Your task to perform on an android device: Play the last video I watched on Youtube Image 0: 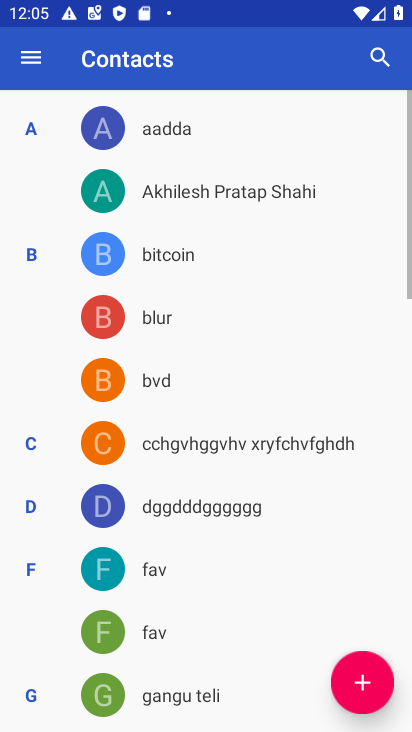
Step 0: press home button
Your task to perform on an android device: Play the last video I watched on Youtube Image 1: 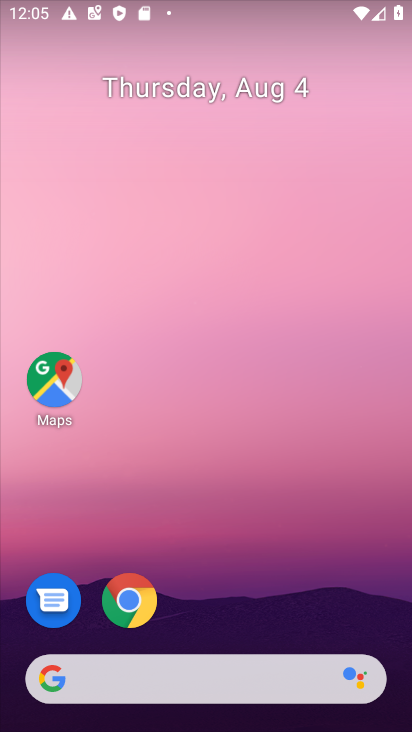
Step 1: drag from (183, 683) to (272, 95)
Your task to perform on an android device: Play the last video I watched on Youtube Image 2: 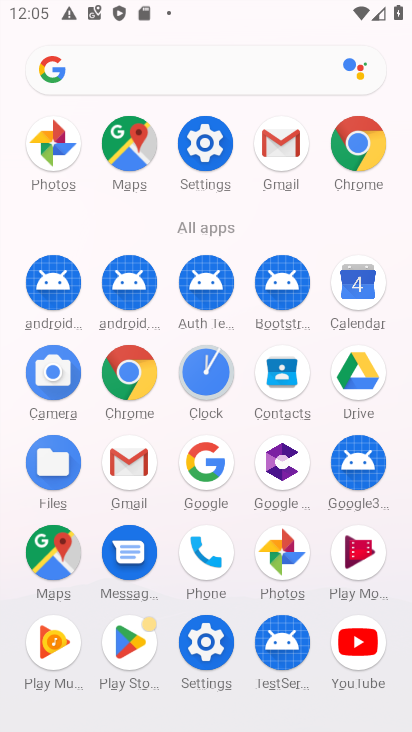
Step 2: click (356, 647)
Your task to perform on an android device: Play the last video I watched on Youtube Image 3: 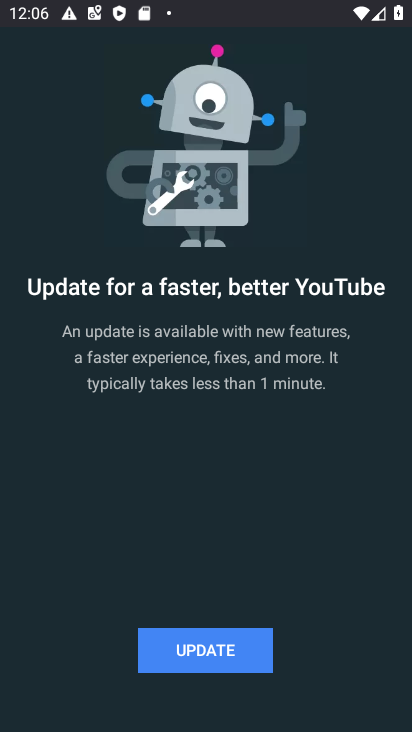
Step 3: click (214, 648)
Your task to perform on an android device: Play the last video I watched on Youtube Image 4: 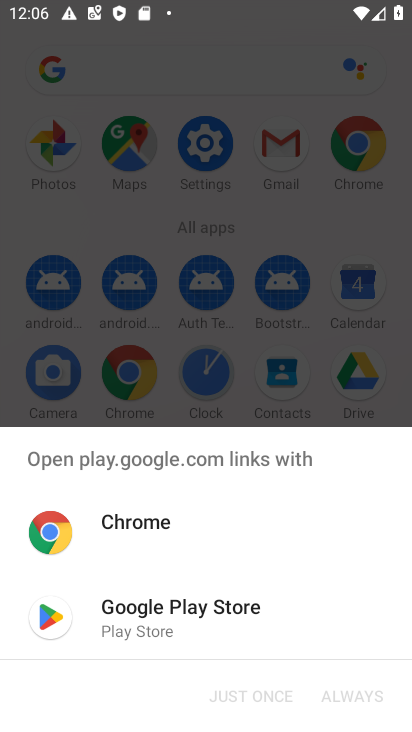
Step 4: click (157, 611)
Your task to perform on an android device: Play the last video I watched on Youtube Image 5: 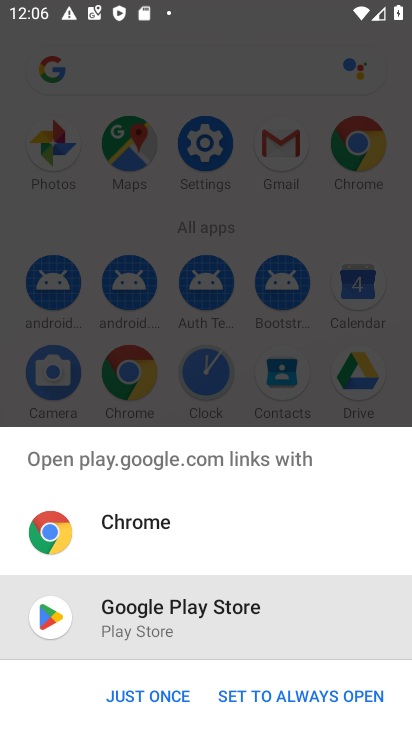
Step 5: click (133, 696)
Your task to perform on an android device: Play the last video I watched on Youtube Image 6: 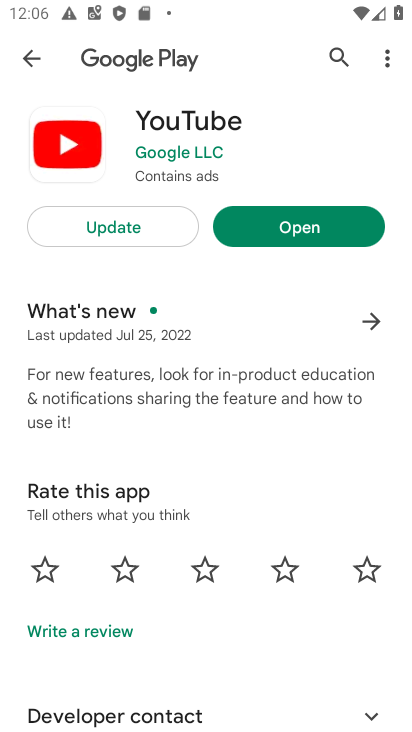
Step 6: click (145, 232)
Your task to perform on an android device: Play the last video I watched on Youtube Image 7: 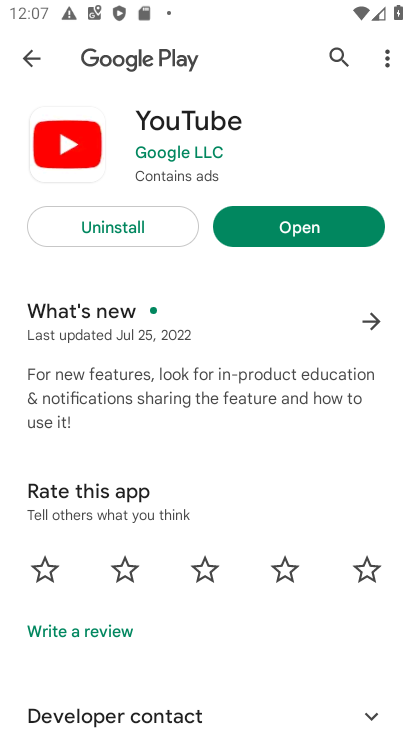
Step 7: click (278, 225)
Your task to perform on an android device: Play the last video I watched on Youtube Image 8: 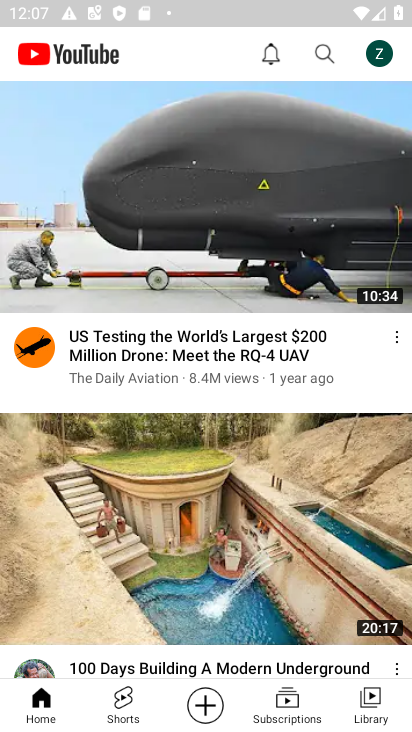
Step 8: click (374, 695)
Your task to perform on an android device: Play the last video I watched on Youtube Image 9: 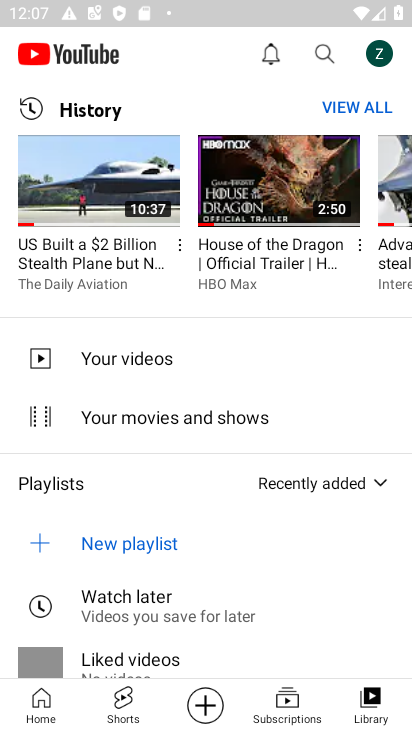
Step 9: click (123, 195)
Your task to perform on an android device: Play the last video I watched on Youtube Image 10: 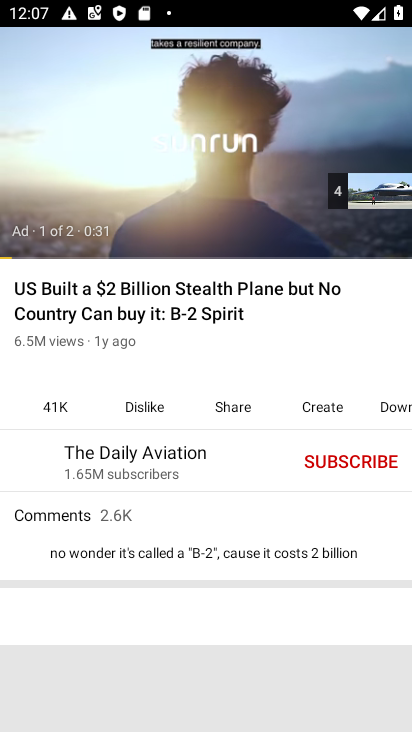
Step 10: click (200, 98)
Your task to perform on an android device: Play the last video I watched on Youtube Image 11: 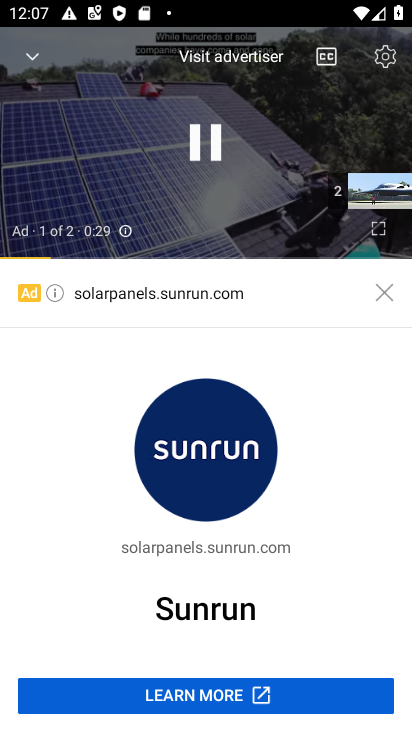
Step 11: click (382, 289)
Your task to perform on an android device: Play the last video I watched on Youtube Image 12: 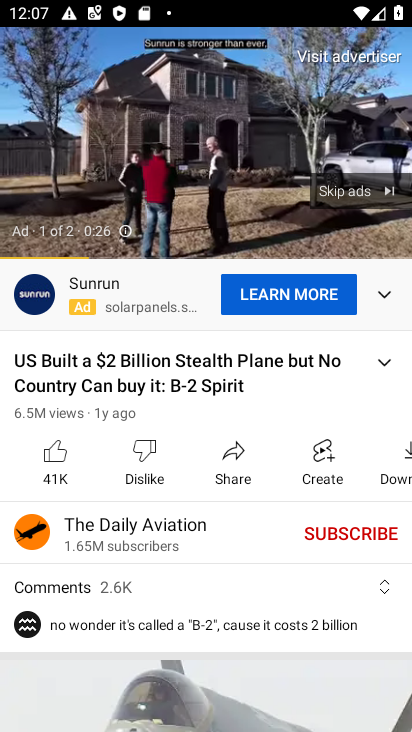
Step 12: click (341, 193)
Your task to perform on an android device: Play the last video I watched on Youtube Image 13: 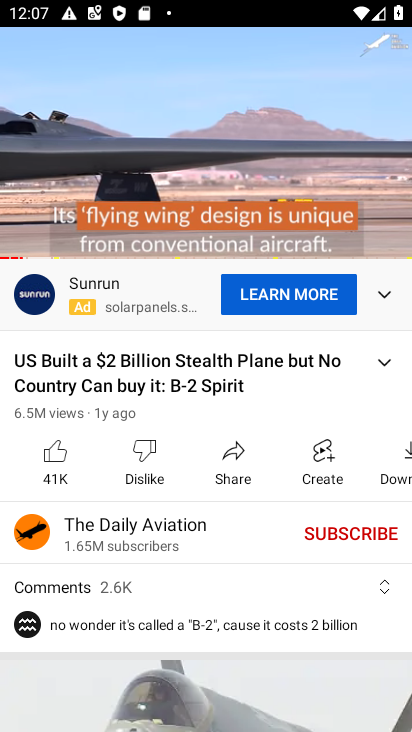
Step 13: click (219, 147)
Your task to perform on an android device: Play the last video I watched on Youtube Image 14: 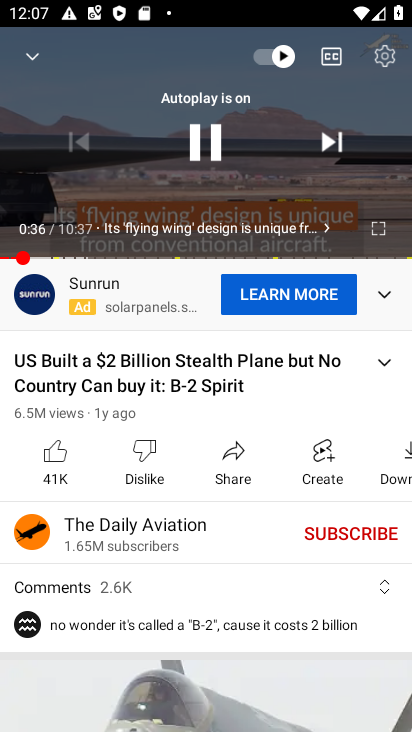
Step 14: click (210, 144)
Your task to perform on an android device: Play the last video I watched on Youtube Image 15: 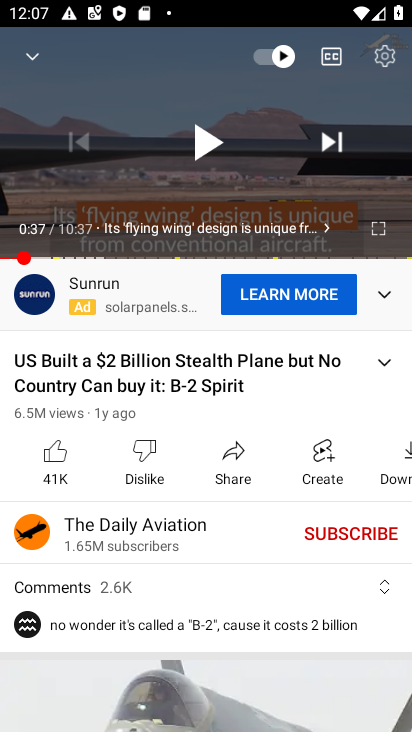
Step 15: task complete